Your task to perform on an android device: Go to accessibility settings Image 0: 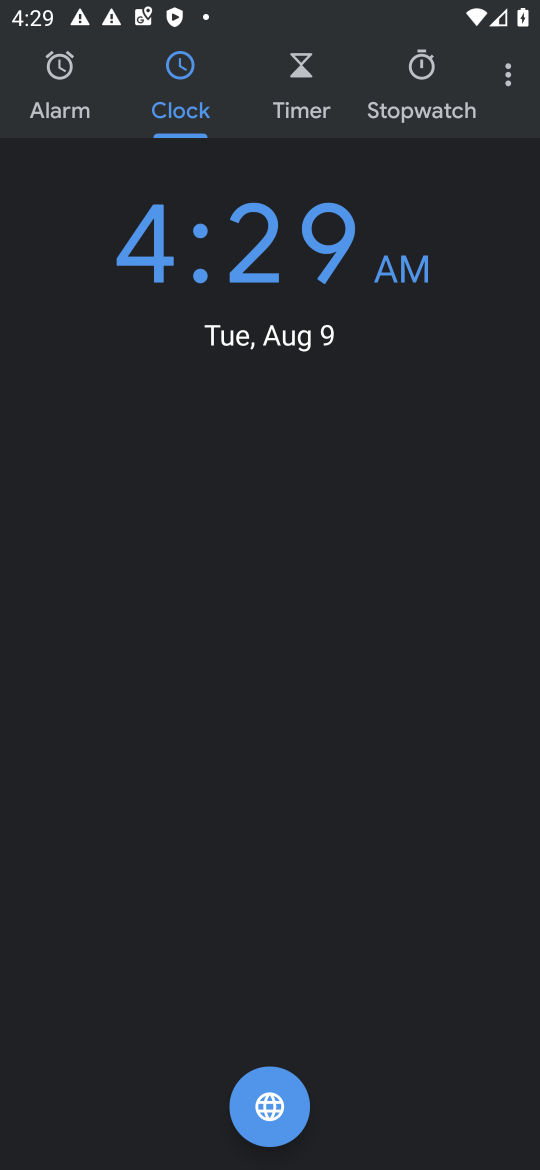
Step 0: press home button
Your task to perform on an android device: Go to accessibility settings Image 1: 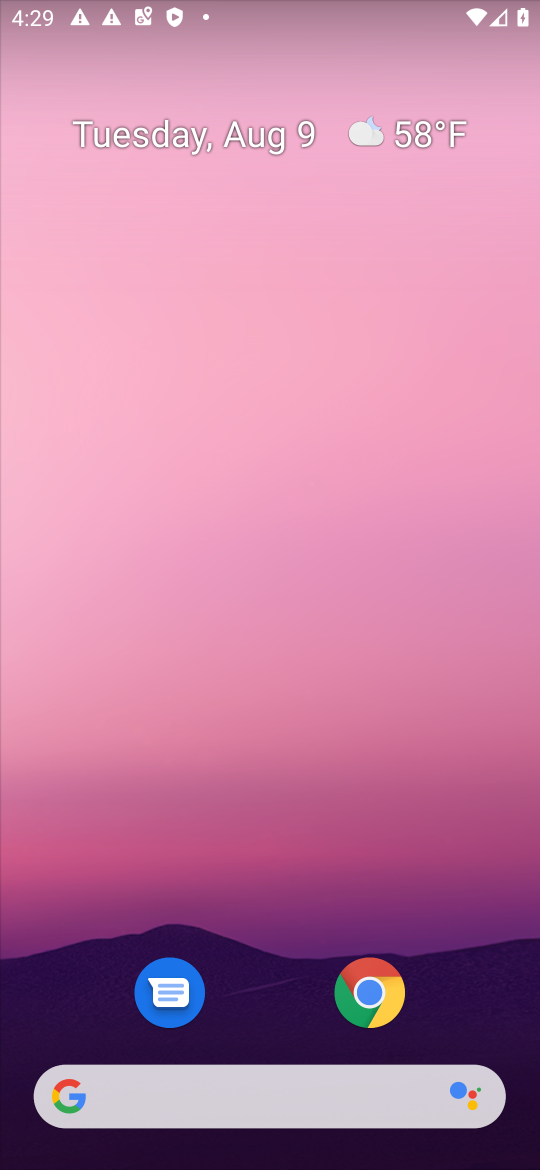
Step 1: drag from (313, 1106) to (377, 23)
Your task to perform on an android device: Go to accessibility settings Image 2: 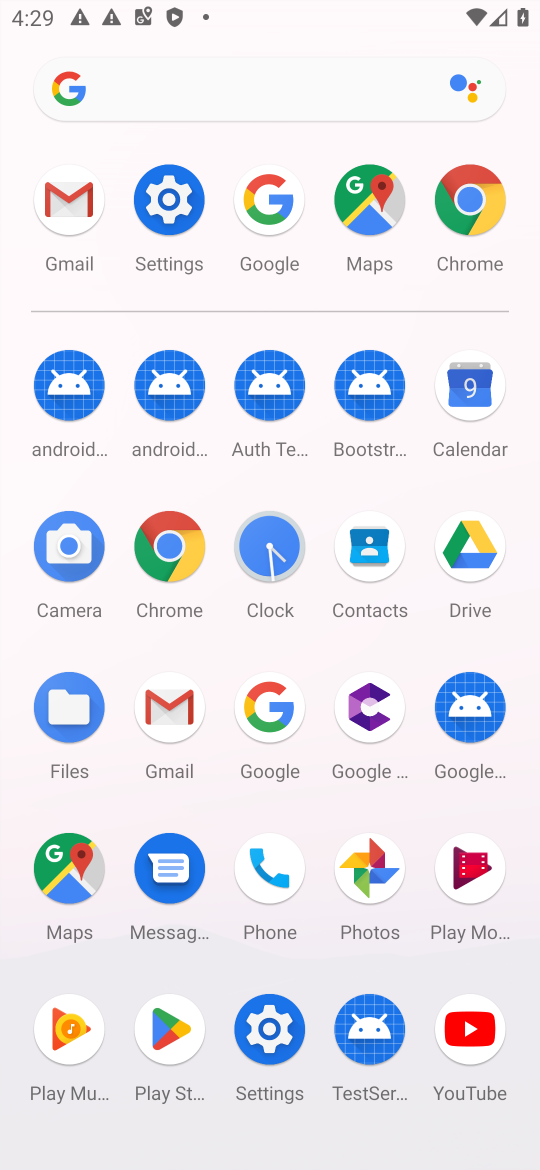
Step 2: click (377, 23)
Your task to perform on an android device: Go to accessibility settings Image 3: 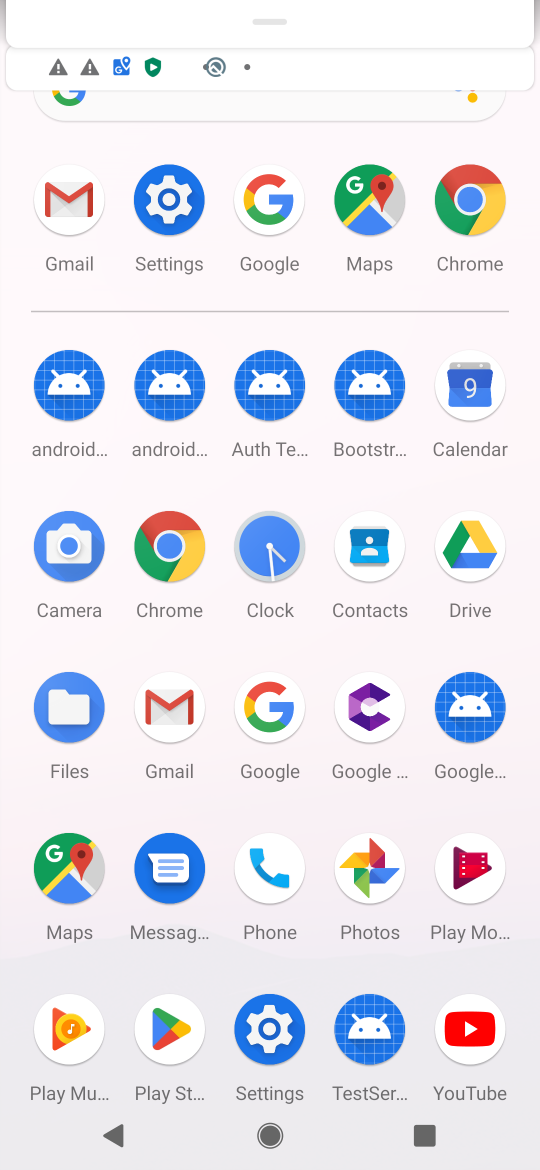
Step 3: click (167, 192)
Your task to perform on an android device: Go to accessibility settings Image 4: 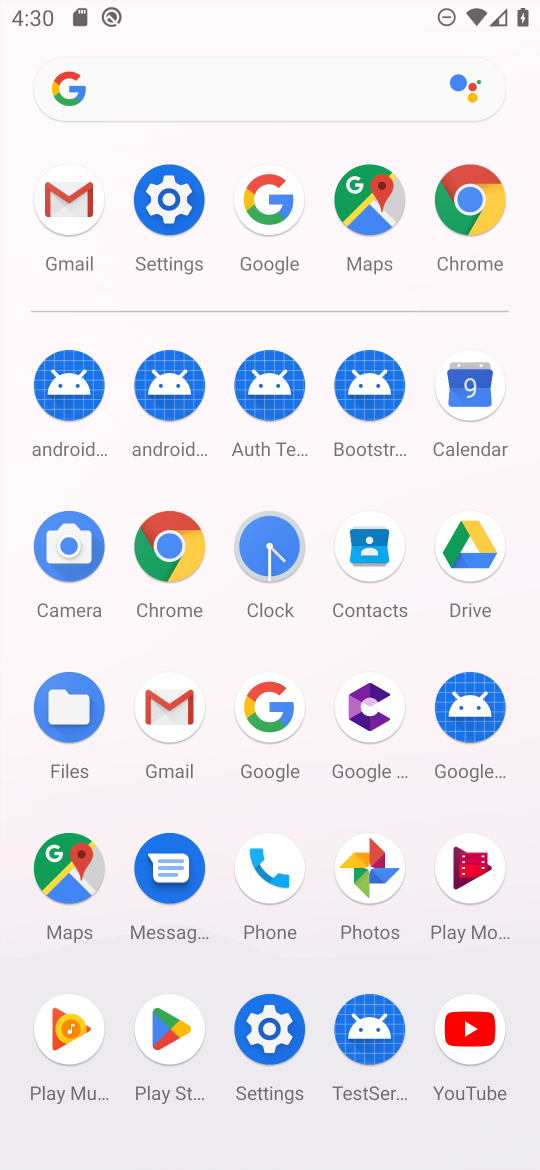
Step 4: click (181, 220)
Your task to perform on an android device: Go to accessibility settings Image 5: 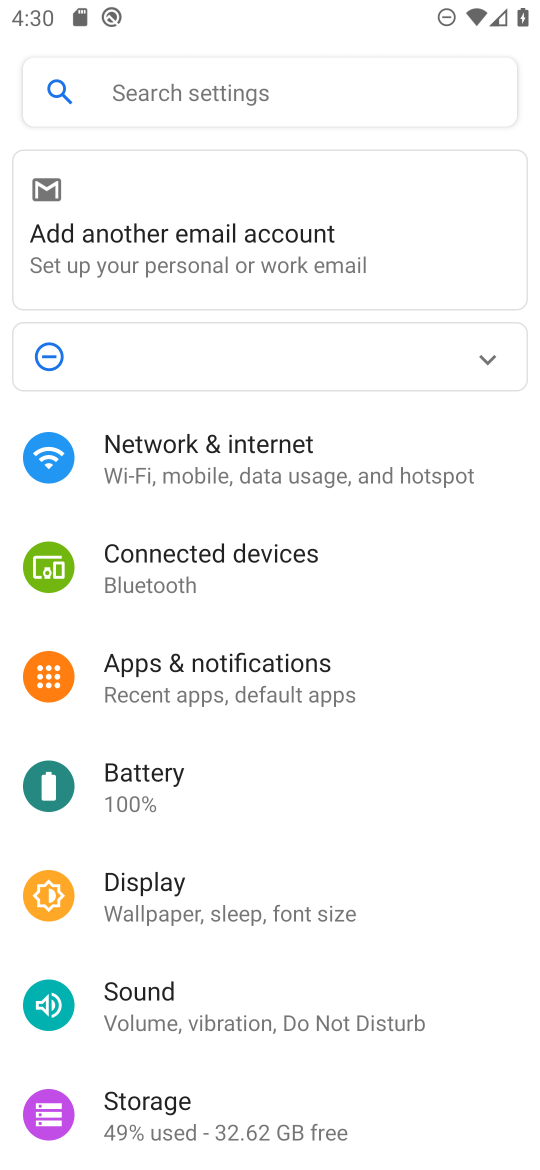
Step 5: drag from (467, 948) to (516, 773)
Your task to perform on an android device: Go to accessibility settings Image 6: 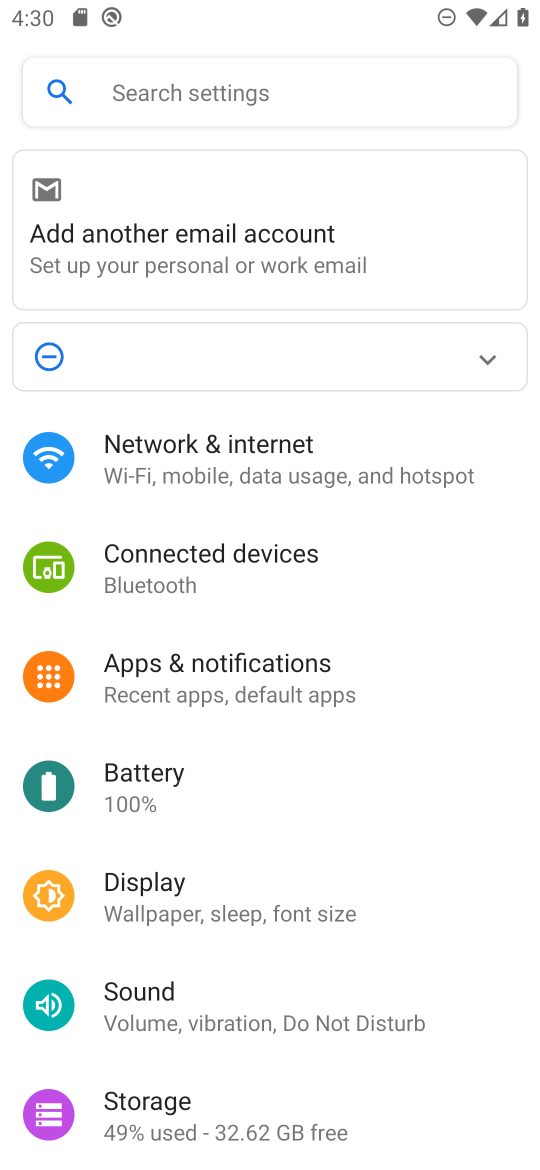
Step 6: click (208, 1138)
Your task to perform on an android device: Go to accessibility settings Image 7: 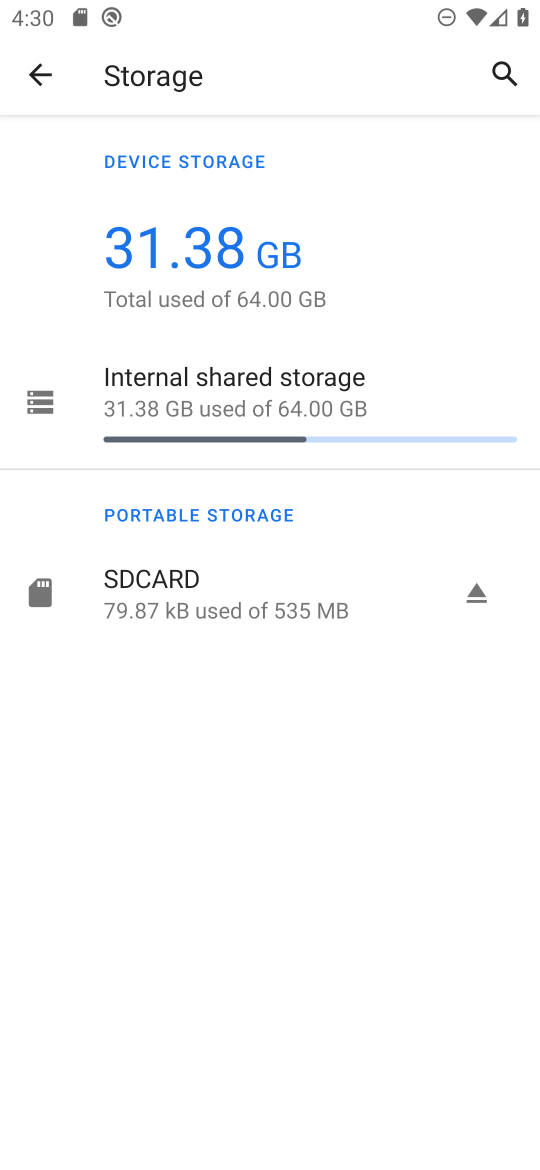
Step 7: press back button
Your task to perform on an android device: Go to accessibility settings Image 8: 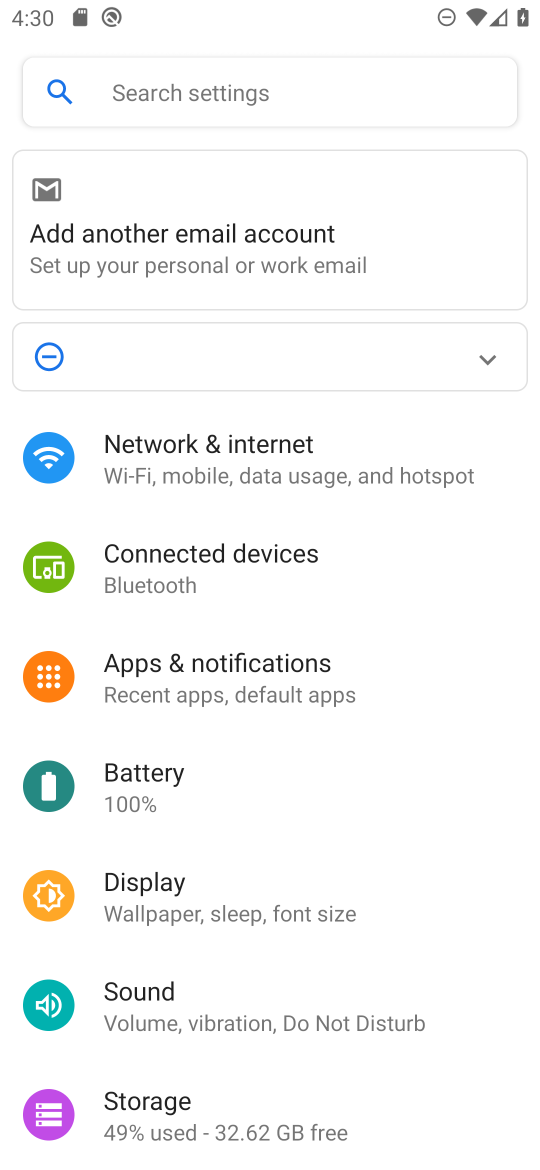
Step 8: drag from (375, 1128) to (455, 196)
Your task to perform on an android device: Go to accessibility settings Image 9: 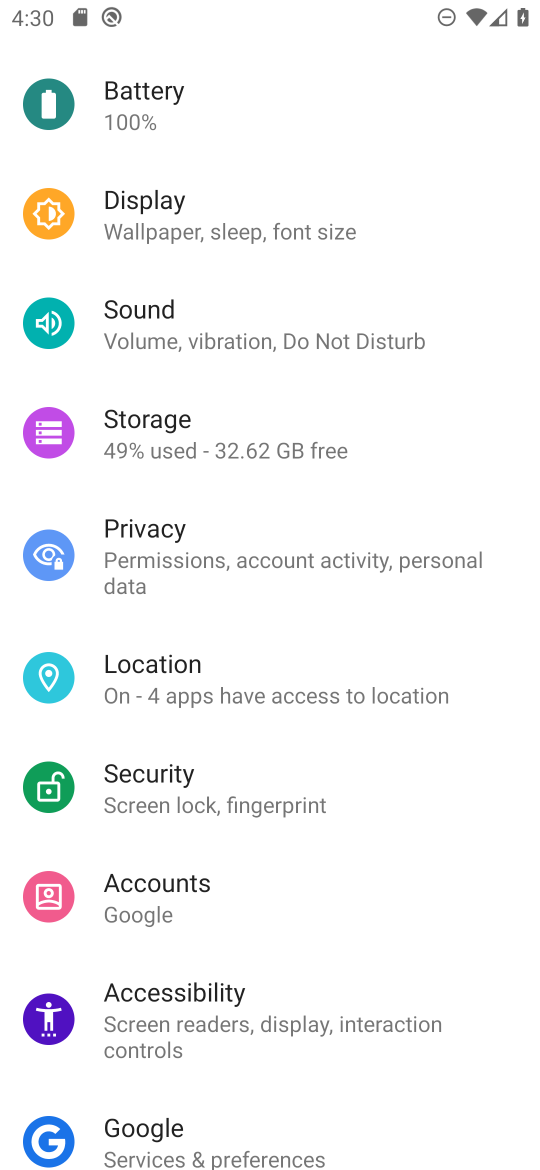
Step 9: click (252, 1013)
Your task to perform on an android device: Go to accessibility settings Image 10: 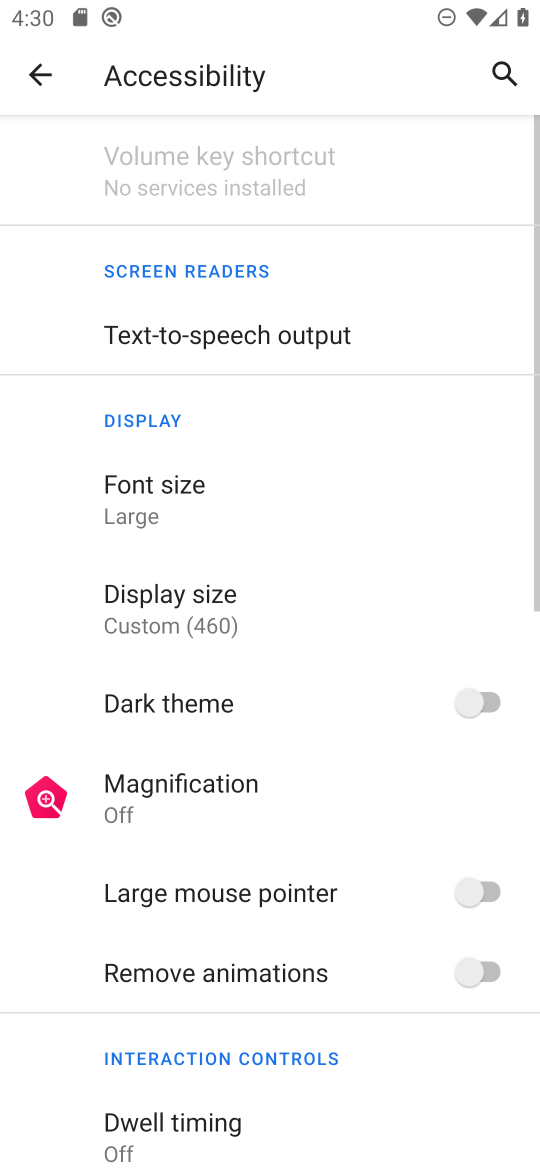
Step 10: task complete